Your task to perform on an android device: toggle data saver in the chrome app Image 0: 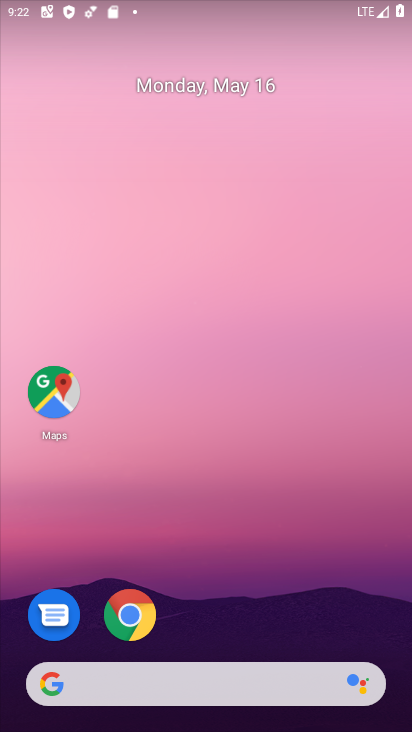
Step 0: click (136, 608)
Your task to perform on an android device: toggle data saver in the chrome app Image 1: 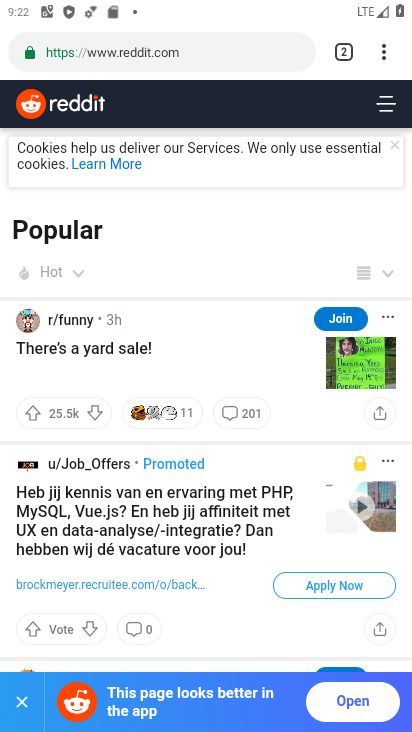
Step 1: click (377, 61)
Your task to perform on an android device: toggle data saver in the chrome app Image 2: 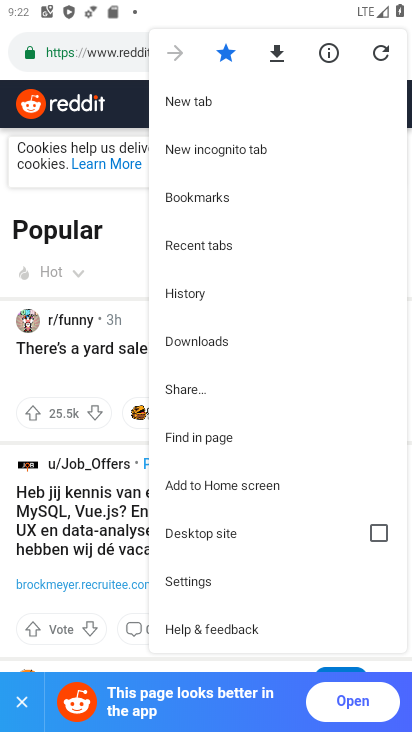
Step 2: click (210, 591)
Your task to perform on an android device: toggle data saver in the chrome app Image 3: 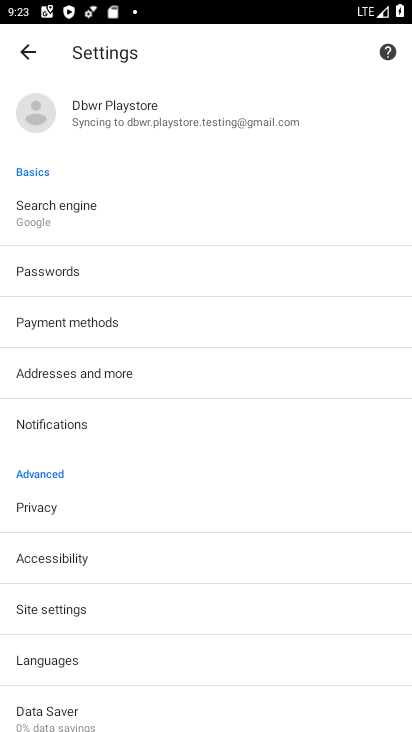
Step 3: drag from (130, 616) to (126, 465)
Your task to perform on an android device: toggle data saver in the chrome app Image 4: 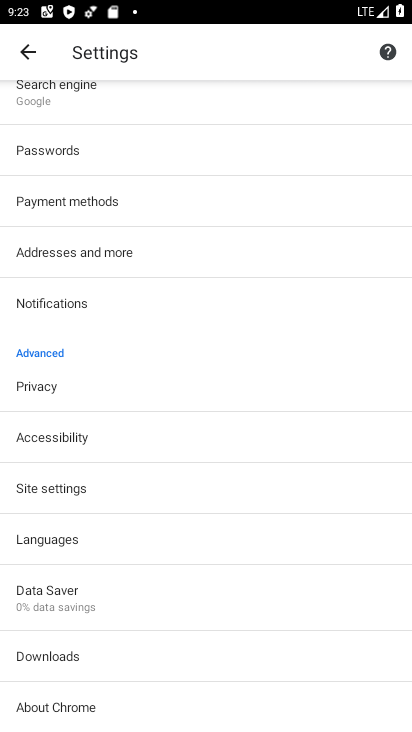
Step 4: click (75, 611)
Your task to perform on an android device: toggle data saver in the chrome app Image 5: 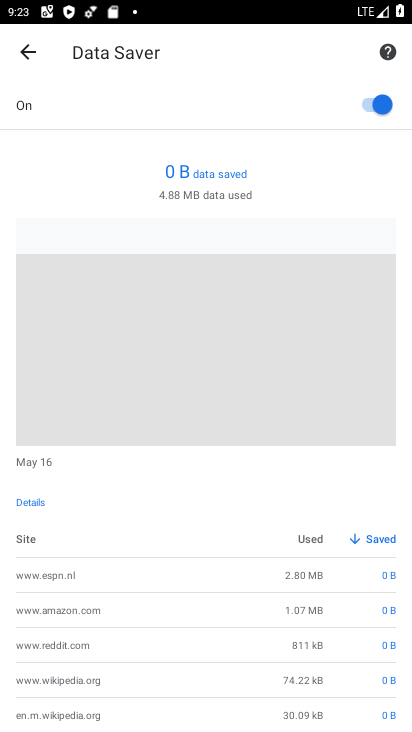
Step 5: click (379, 101)
Your task to perform on an android device: toggle data saver in the chrome app Image 6: 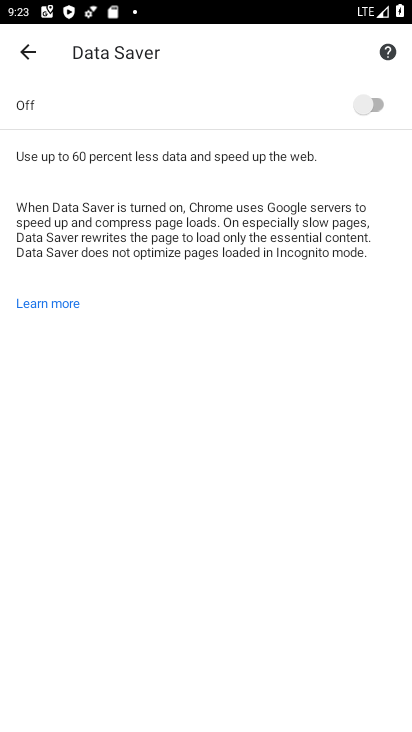
Step 6: task complete